Your task to perform on an android device: Open battery settings Image 0: 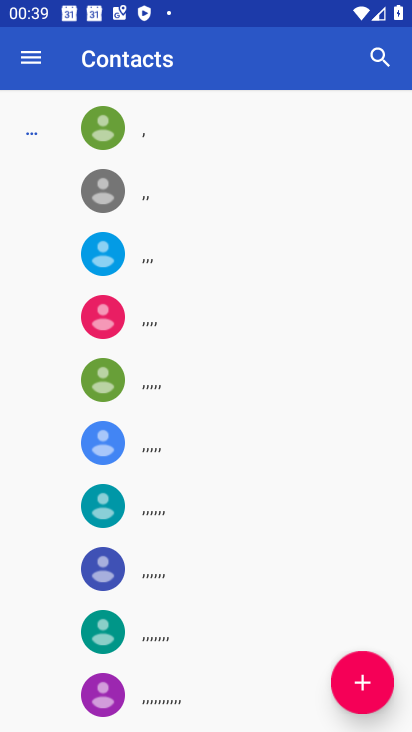
Step 0: click (124, 599)
Your task to perform on an android device: Open battery settings Image 1: 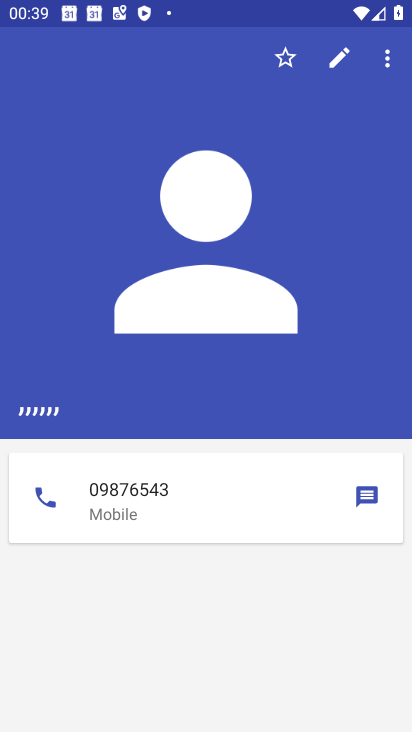
Step 1: press home button
Your task to perform on an android device: Open battery settings Image 2: 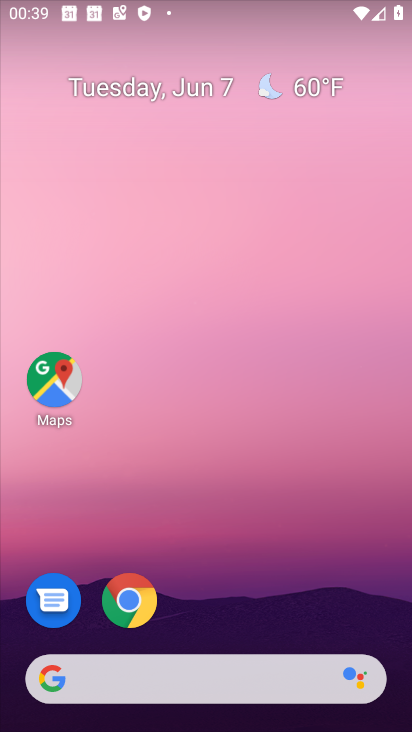
Step 2: drag from (208, 690) to (208, 120)
Your task to perform on an android device: Open battery settings Image 3: 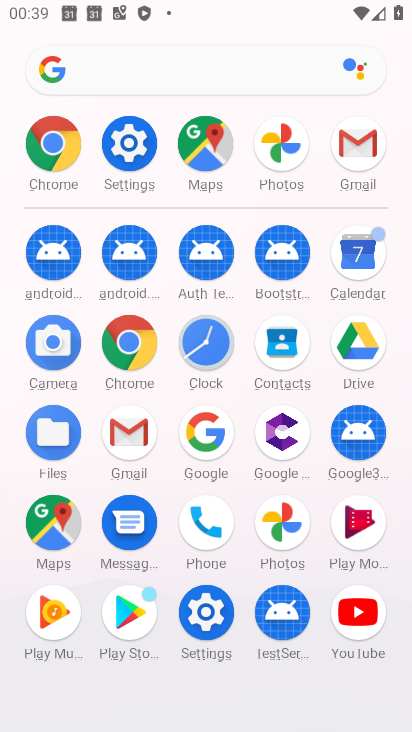
Step 3: click (132, 141)
Your task to perform on an android device: Open battery settings Image 4: 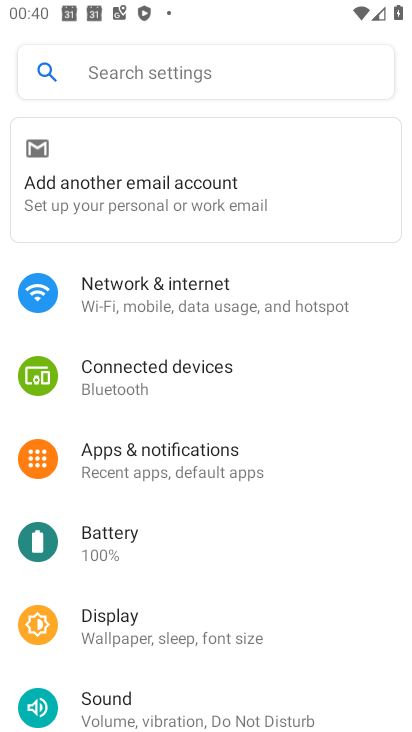
Step 4: click (101, 534)
Your task to perform on an android device: Open battery settings Image 5: 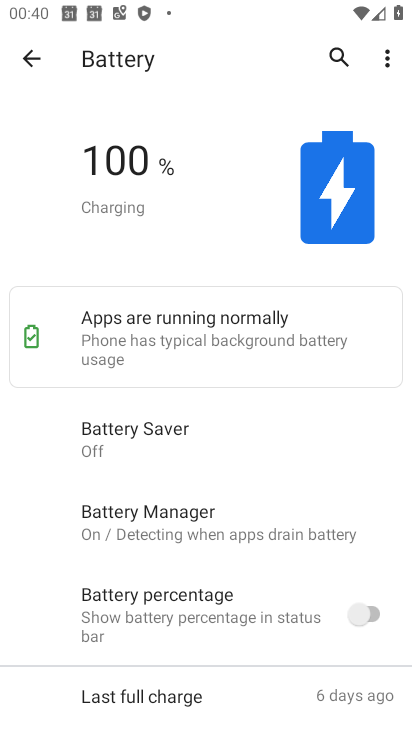
Step 5: task complete